Your task to perform on an android device: check storage Image 0: 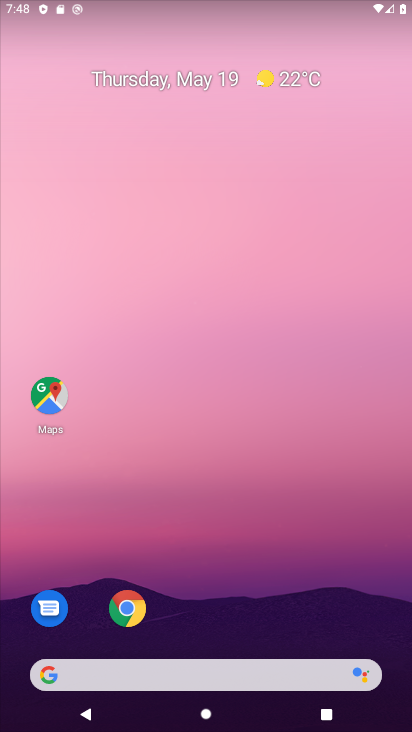
Step 0: drag from (233, 713) to (184, 20)
Your task to perform on an android device: check storage Image 1: 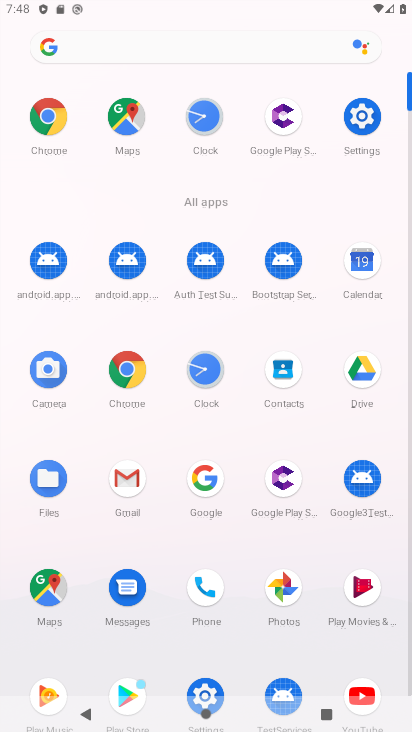
Step 1: click (370, 116)
Your task to perform on an android device: check storage Image 2: 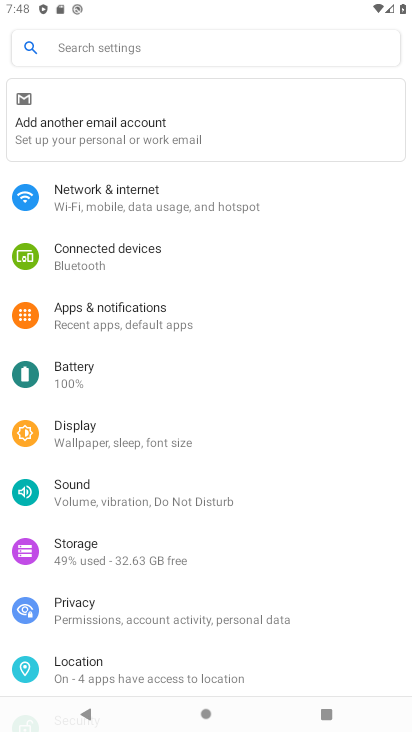
Step 2: click (147, 553)
Your task to perform on an android device: check storage Image 3: 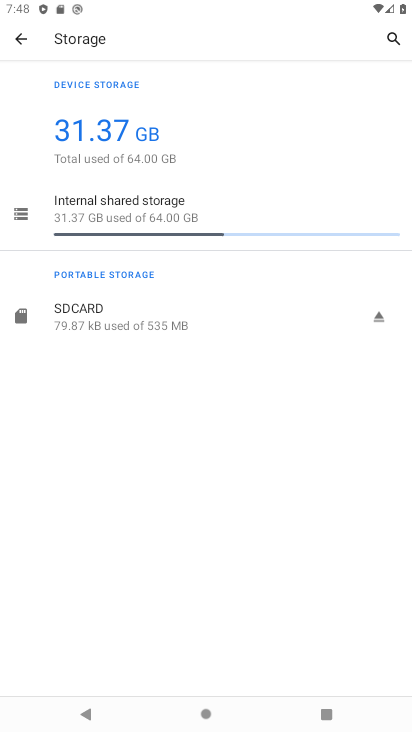
Step 3: task complete